Your task to perform on an android device: turn off javascript in the chrome app Image 0: 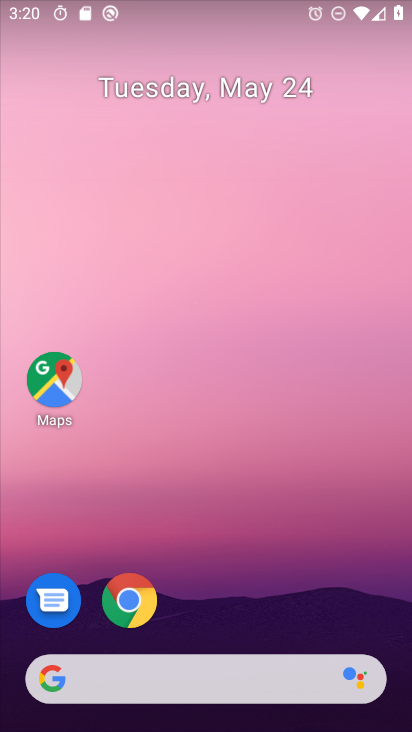
Step 0: drag from (199, 610) to (253, 52)
Your task to perform on an android device: turn off javascript in the chrome app Image 1: 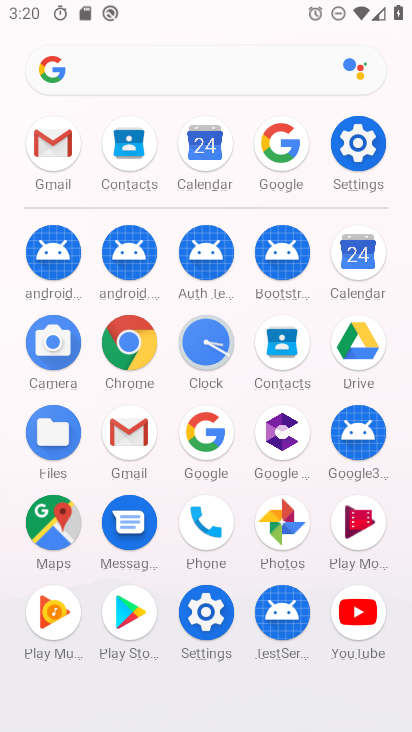
Step 1: click (135, 327)
Your task to perform on an android device: turn off javascript in the chrome app Image 2: 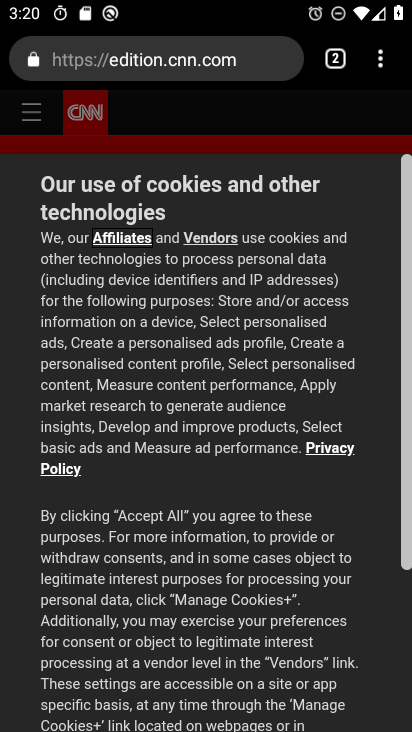
Step 2: click (390, 47)
Your task to perform on an android device: turn off javascript in the chrome app Image 3: 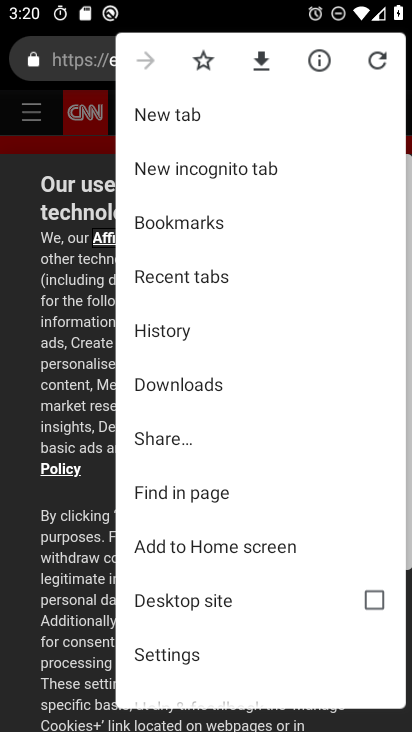
Step 3: click (190, 645)
Your task to perform on an android device: turn off javascript in the chrome app Image 4: 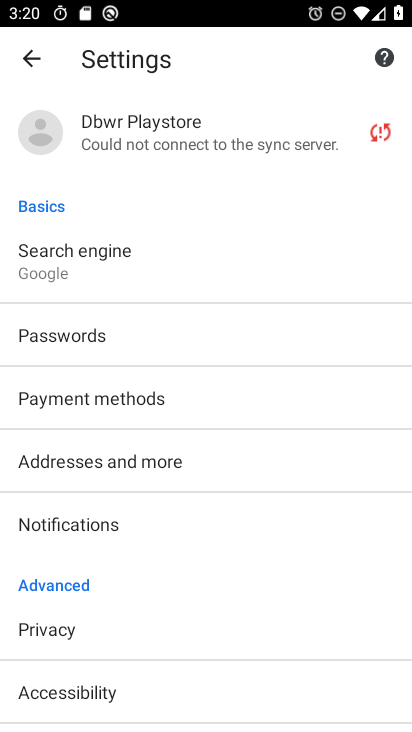
Step 4: drag from (116, 606) to (220, 235)
Your task to perform on an android device: turn off javascript in the chrome app Image 5: 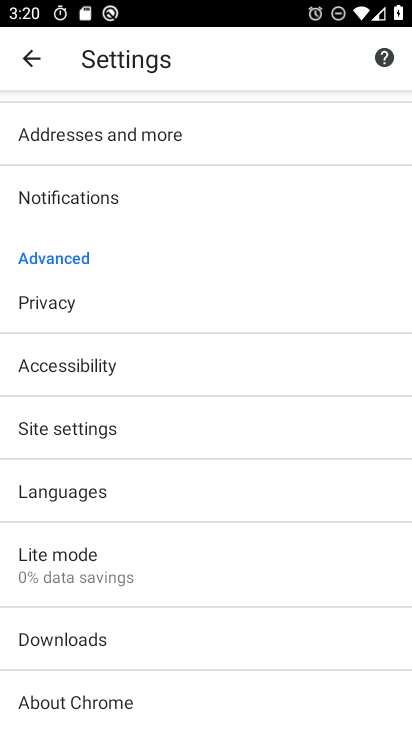
Step 5: click (103, 425)
Your task to perform on an android device: turn off javascript in the chrome app Image 6: 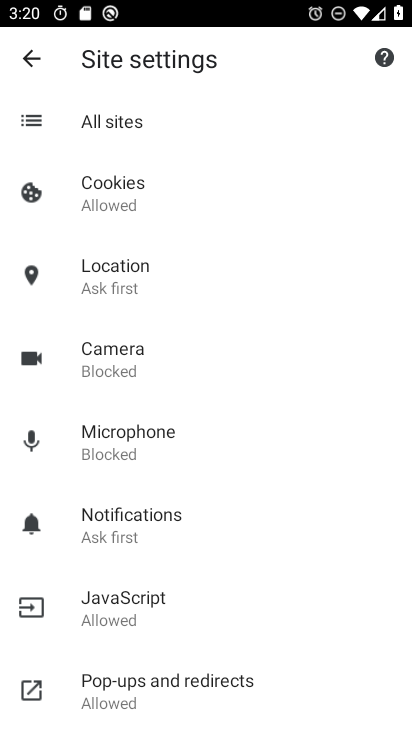
Step 6: click (125, 619)
Your task to perform on an android device: turn off javascript in the chrome app Image 7: 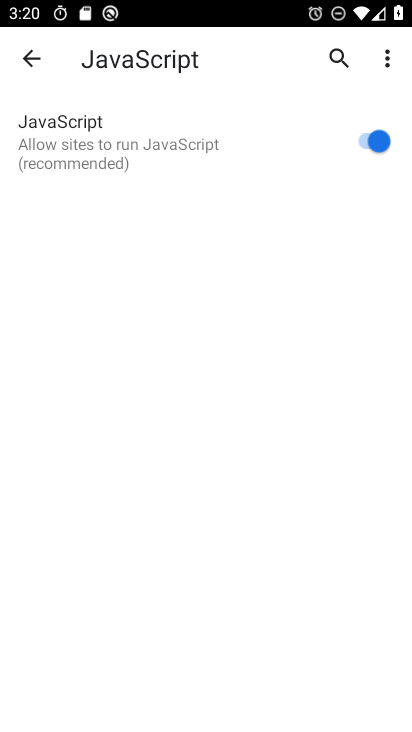
Step 7: click (367, 146)
Your task to perform on an android device: turn off javascript in the chrome app Image 8: 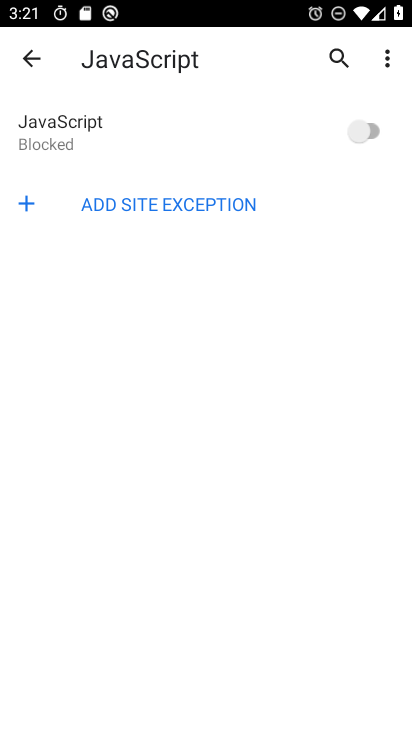
Step 8: task complete